Your task to perform on an android device: Open Amazon Image 0: 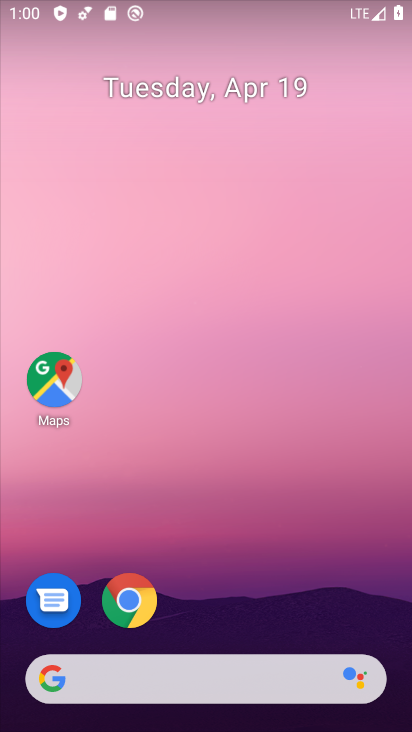
Step 0: drag from (238, 651) to (166, 61)
Your task to perform on an android device: Open Amazon Image 1: 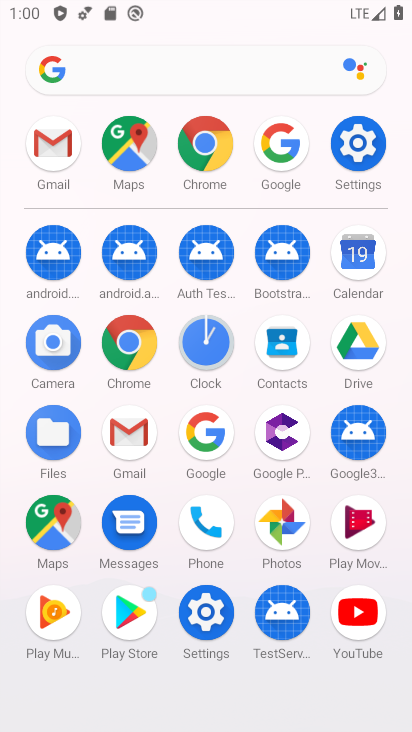
Step 1: click (206, 148)
Your task to perform on an android device: Open Amazon Image 2: 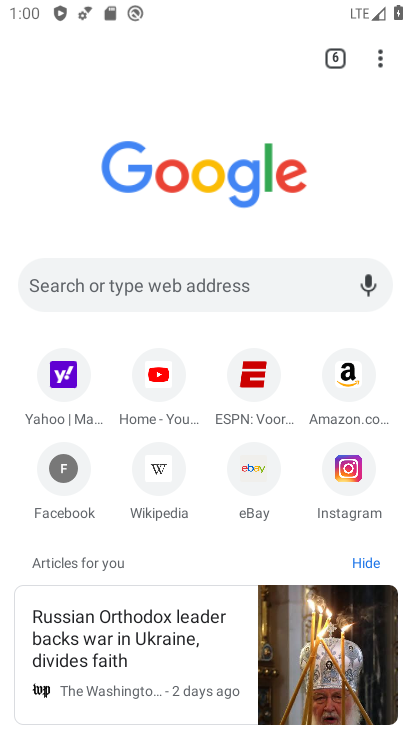
Step 2: click (344, 371)
Your task to perform on an android device: Open Amazon Image 3: 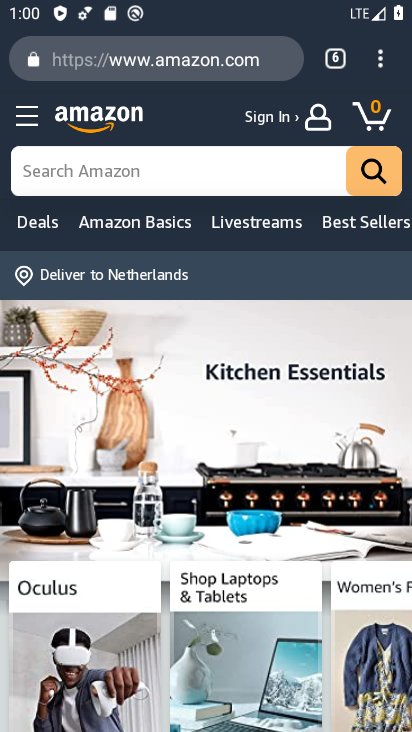
Step 3: task complete